Your task to perform on an android device: turn smart compose on in the gmail app Image 0: 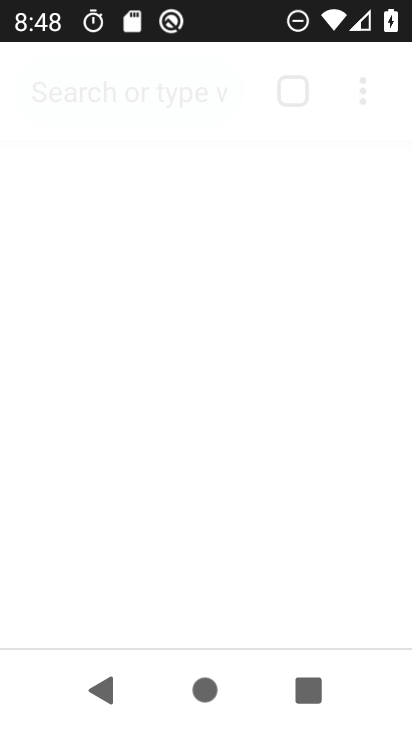
Step 0: drag from (215, 534) to (230, 37)
Your task to perform on an android device: turn smart compose on in the gmail app Image 1: 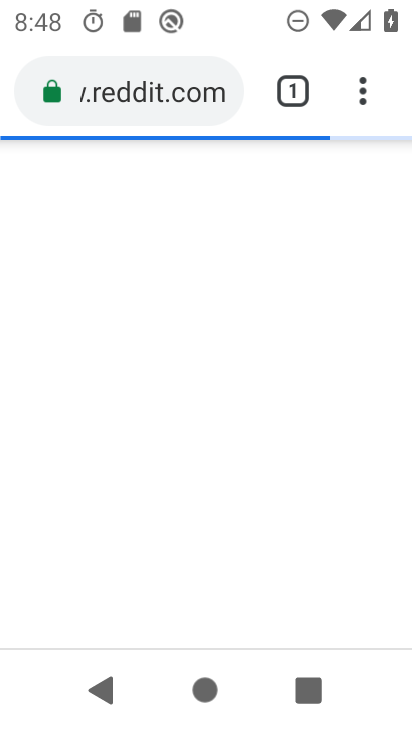
Step 1: press home button
Your task to perform on an android device: turn smart compose on in the gmail app Image 2: 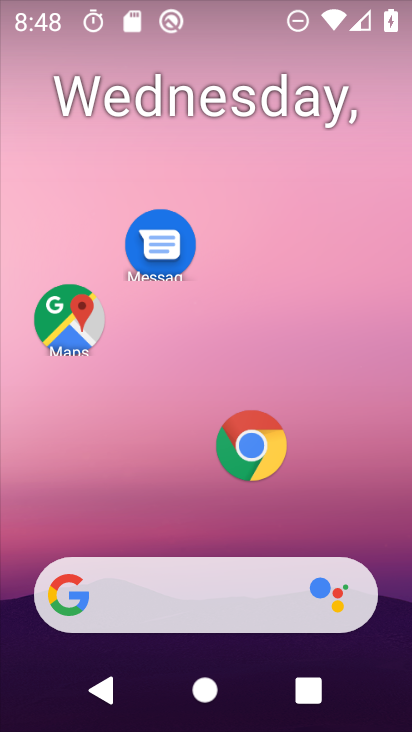
Step 2: drag from (206, 512) to (232, 60)
Your task to perform on an android device: turn smart compose on in the gmail app Image 3: 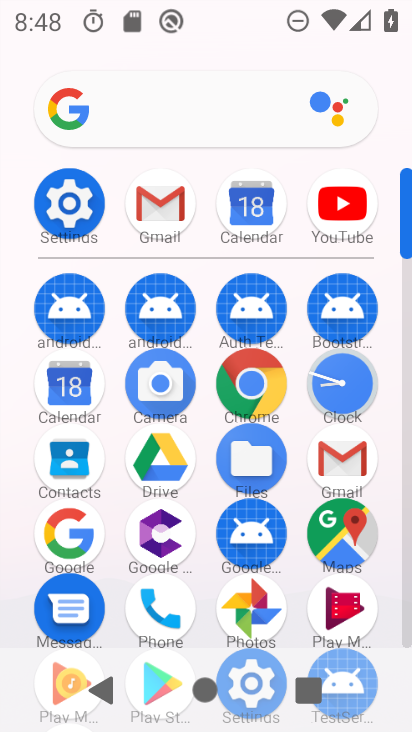
Step 3: click (164, 199)
Your task to perform on an android device: turn smart compose on in the gmail app Image 4: 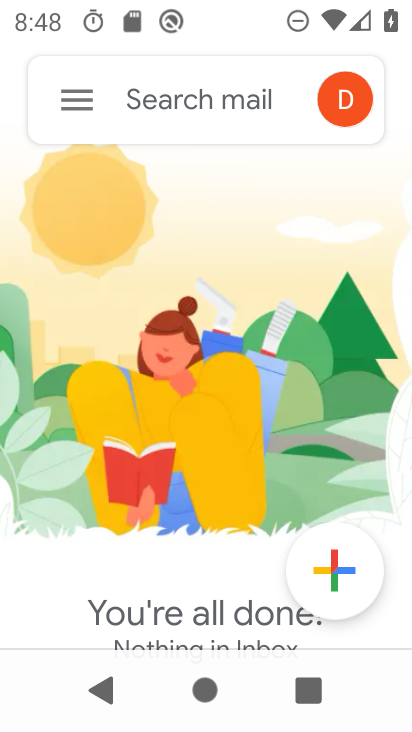
Step 4: click (76, 99)
Your task to perform on an android device: turn smart compose on in the gmail app Image 5: 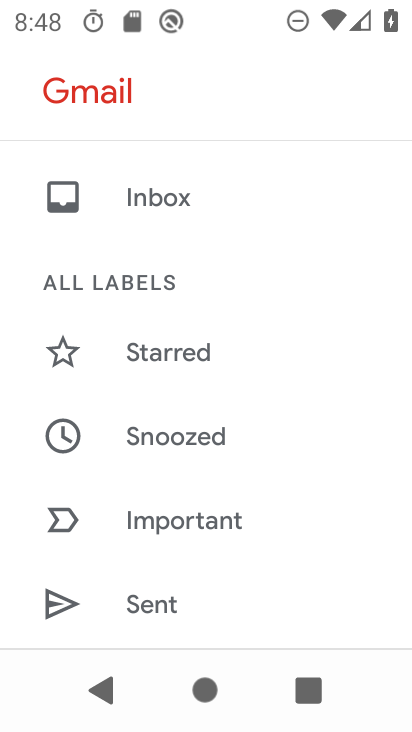
Step 5: drag from (201, 587) to (223, 47)
Your task to perform on an android device: turn smart compose on in the gmail app Image 6: 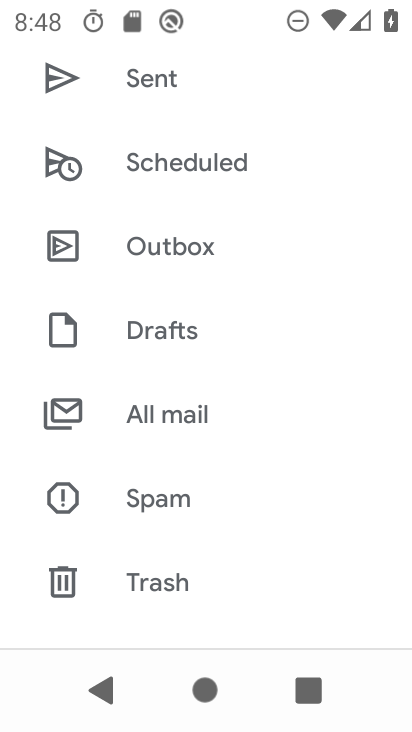
Step 6: drag from (225, 591) to (212, 122)
Your task to perform on an android device: turn smart compose on in the gmail app Image 7: 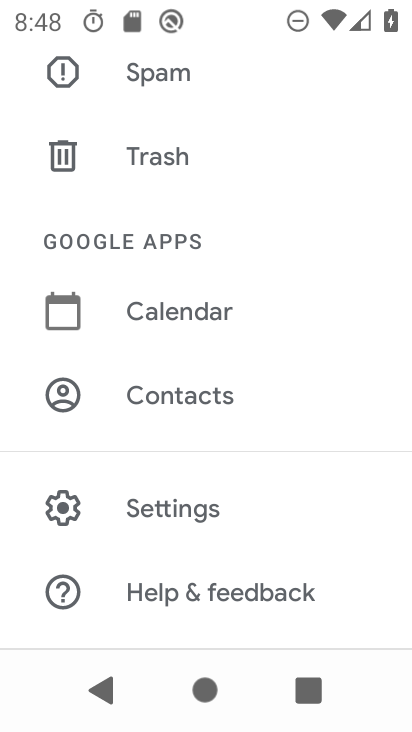
Step 7: click (113, 507)
Your task to perform on an android device: turn smart compose on in the gmail app Image 8: 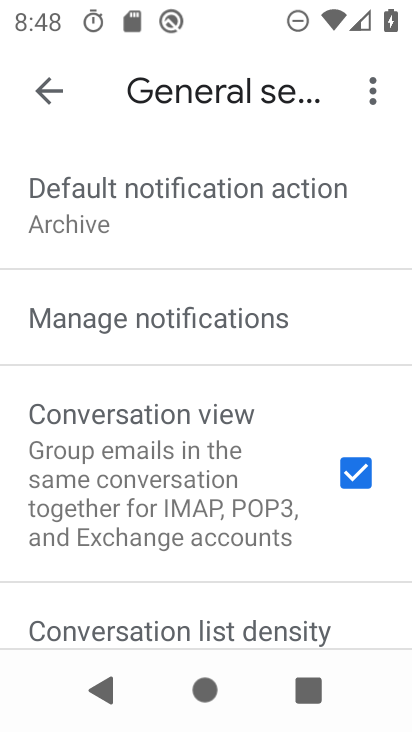
Step 8: drag from (227, 599) to (214, 414)
Your task to perform on an android device: turn smart compose on in the gmail app Image 9: 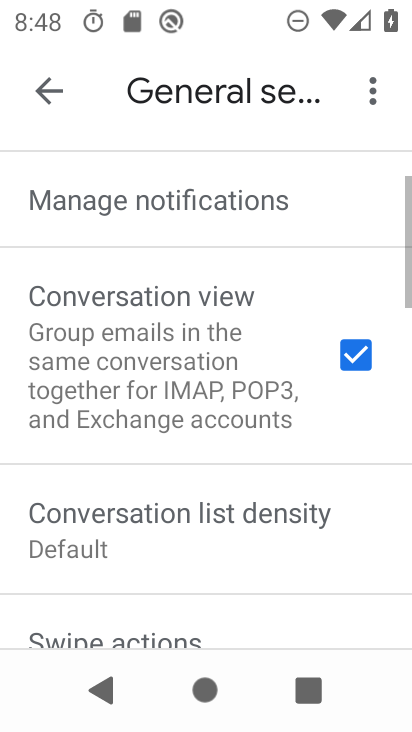
Step 9: drag from (207, 355) to (198, 289)
Your task to perform on an android device: turn smart compose on in the gmail app Image 10: 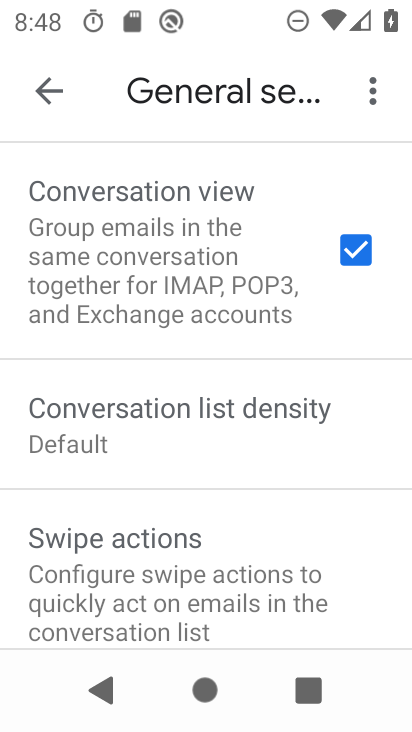
Step 10: click (55, 94)
Your task to perform on an android device: turn smart compose on in the gmail app Image 11: 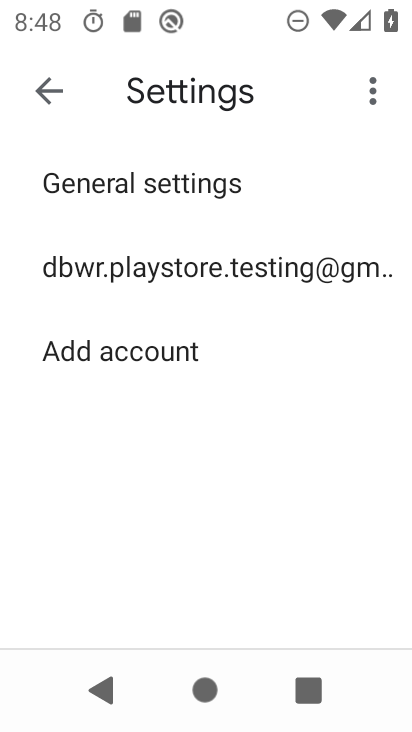
Step 11: click (227, 262)
Your task to perform on an android device: turn smart compose on in the gmail app Image 12: 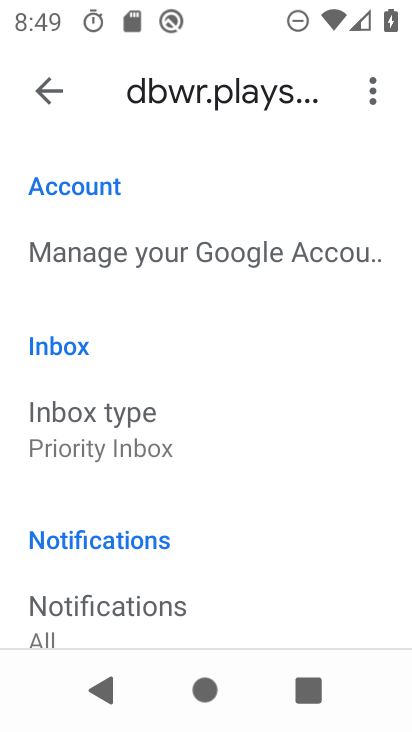
Step 12: task complete